Your task to perform on an android device: refresh tabs in the chrome app Image 0: 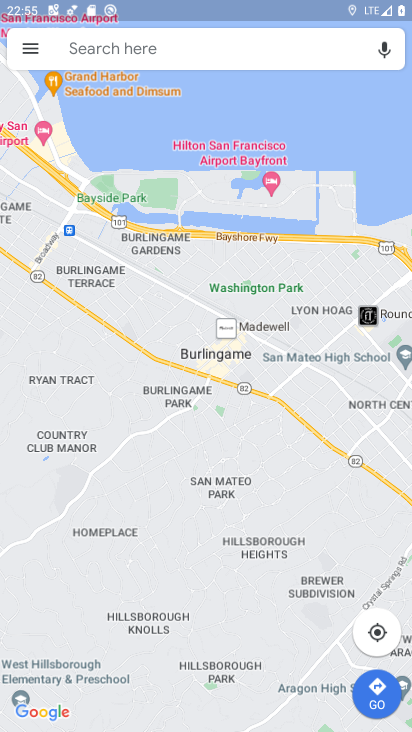
Step 0: press home button
Your task to perform on an android device: refresh tabs in the chrome app Image 1: 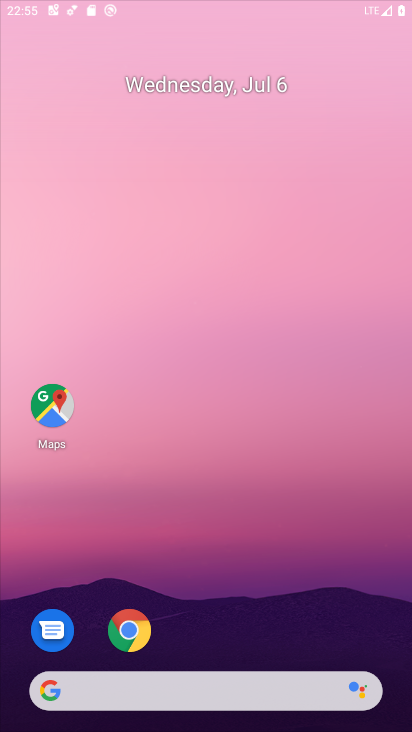
Step 1: drag from (224, 545) to (327, 210)
Your task to perform on an android device: refresh tabs in the chrome app Image 2: 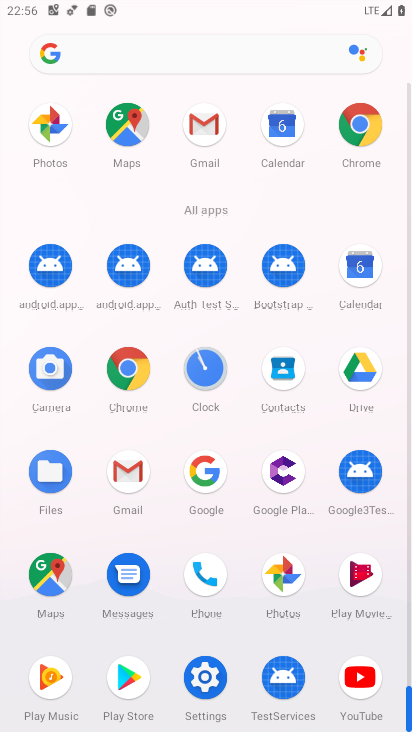
Step 2: click (131, 368)
Your task to perform on an android device: refresh tabs in the chrome app Image 3: 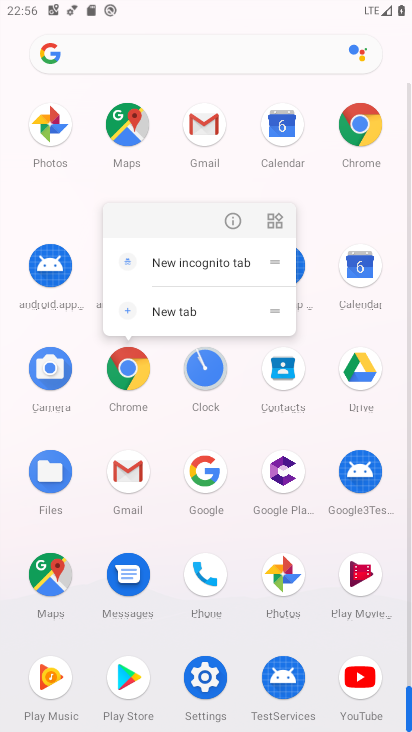
Step 3: click (228, 228)
Your task to perform on an android device: refresh tabs in the chrome app Image 4: 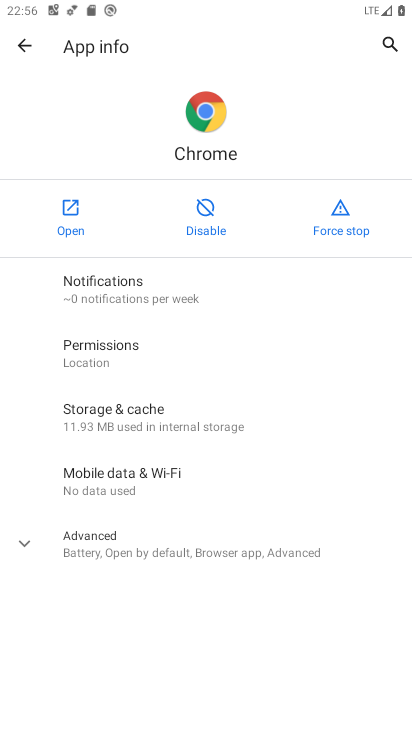
Step 4: click (67, 213)
Your task to perform on an android device: refresh tabs in the chrome app Image 5: 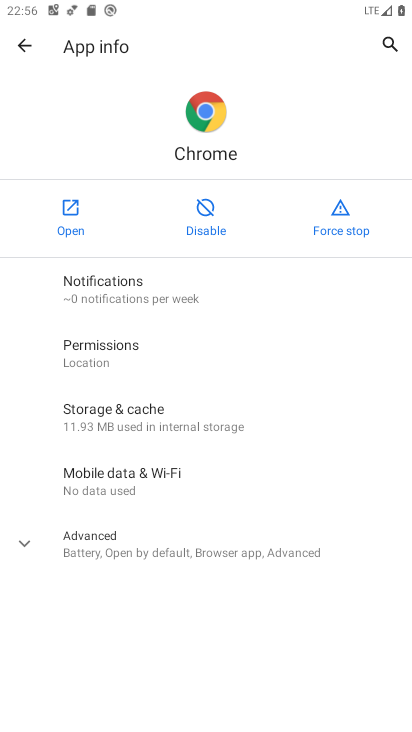
Step 5: click (67, 213)
Your task to perform on an android device: refresh tabs in the chrome app Image 6: 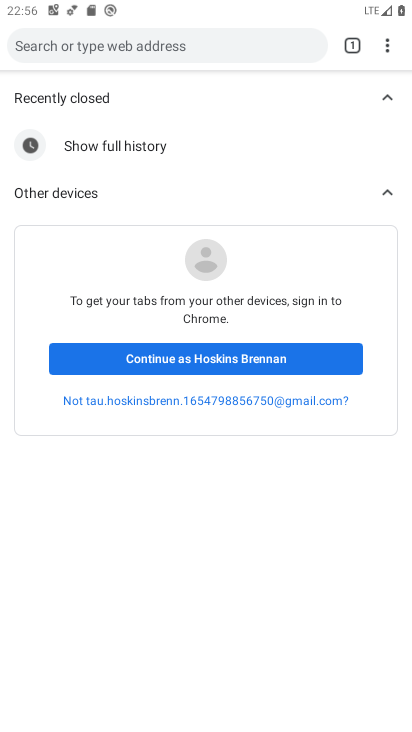
Step 6: click (384, 44)
Your task to perform on an android device: refresh tabs in the chrome app Image 7: 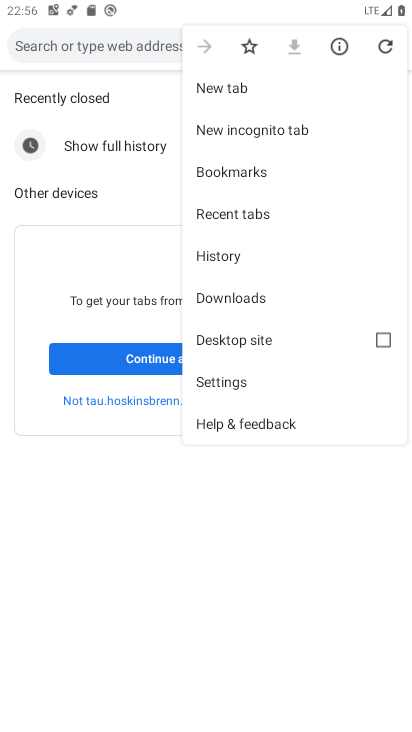
Step 7: click (388, 52)
Your task to perform on an android device: refresh tabs in the chrome app Image 8: 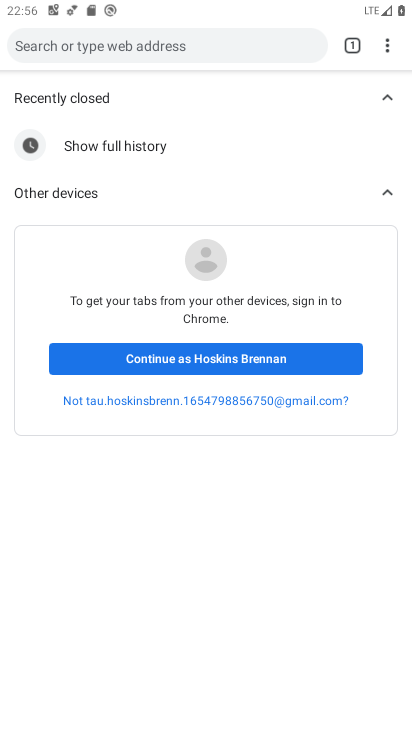
Step 8: click (257, 257)
Your task to perform on an android device: refresh tabs in the chrome app Image 9: 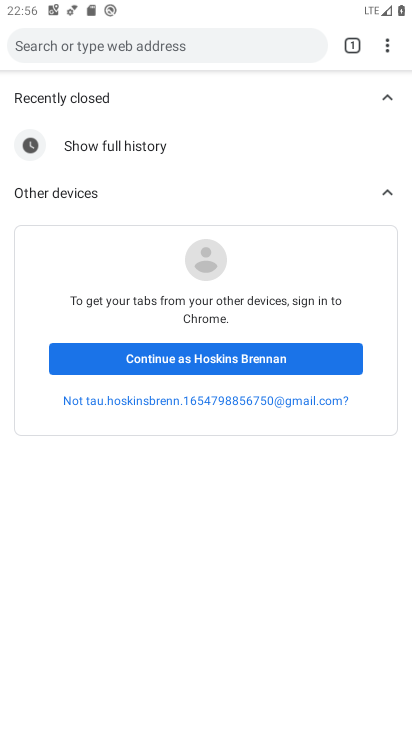
Step 9: click (396, 39)
Your task to perform on an android device: refresh tabs in the chrome app Image 10: 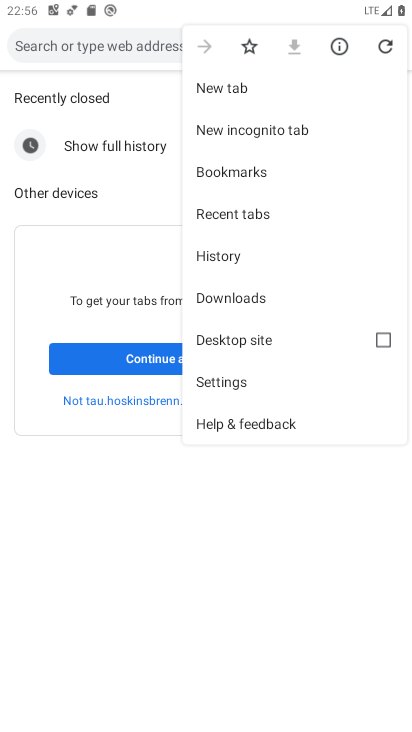
Step 10: click (392, 40)
Your task to perform on an android device: refresh tabs in the chrome app Image 11: 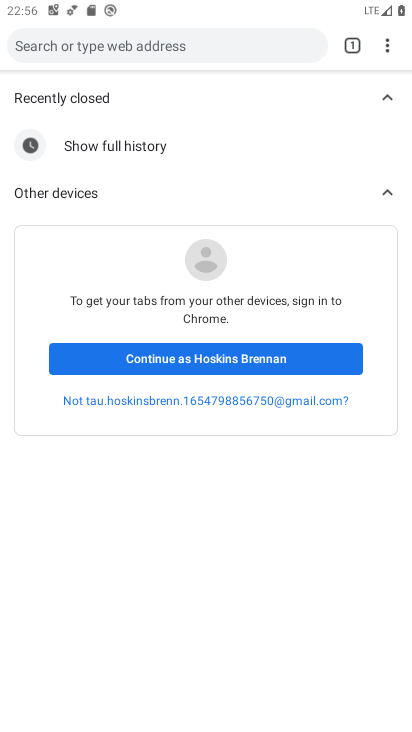
Step 11: task complete